Your task to perform on an android device: toggle javascript in the chrome app Image 0: 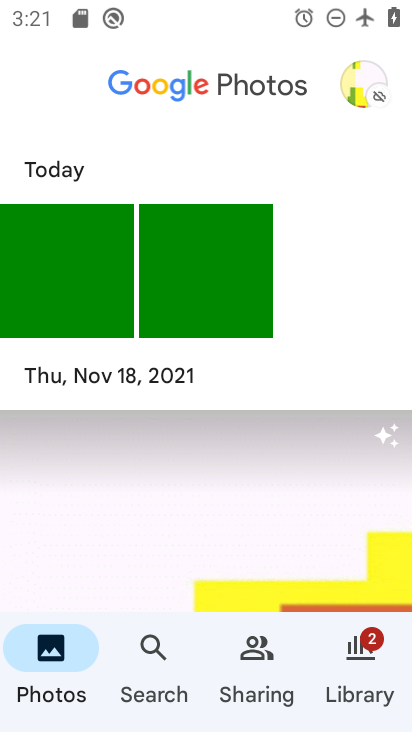
Step 0: press home button
Your task to perform on an android device: toggle javascript in the chrome app Image 1: 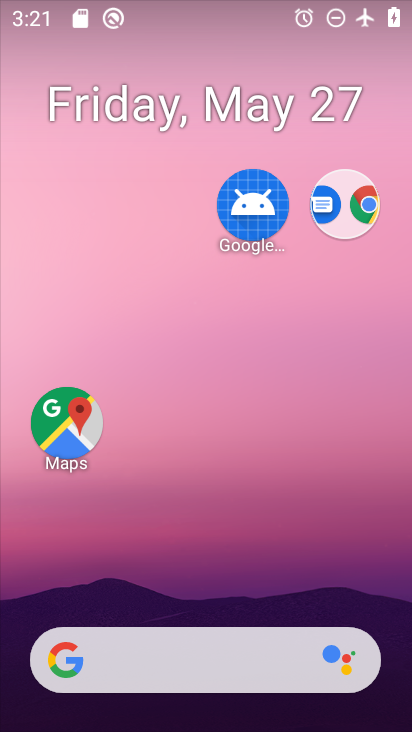
Step 1: drag from (208, 585) to (350, 22)
Your task to perform on an android device: toggle javascript in the chrome app Image 2: 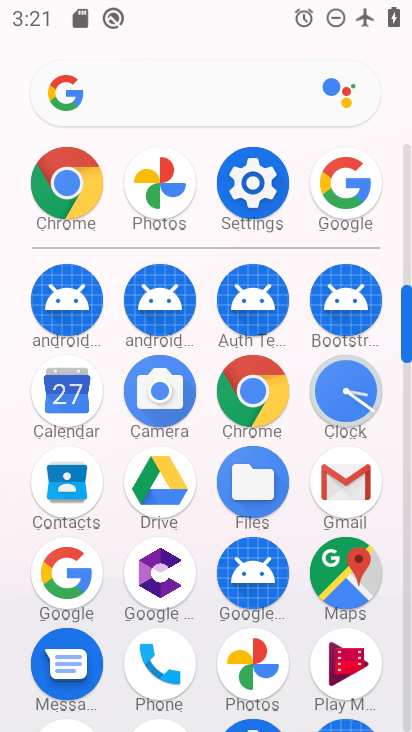
Step 2: click (270, 399)
Your task to perform on an android device: toggle javascript in the chrome app Image 3: 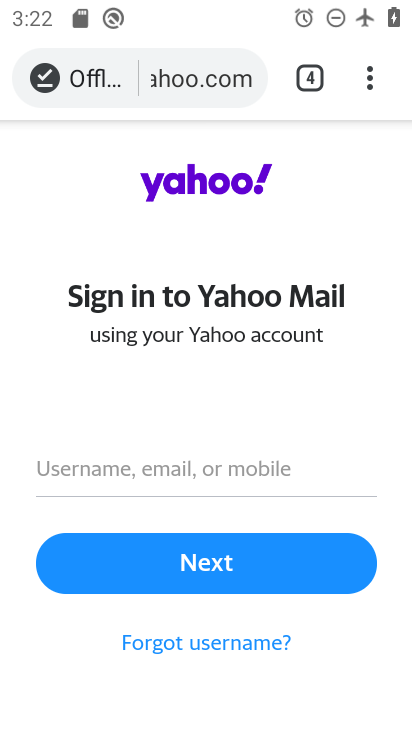
Step 3: click (375, 79)
Your task to perform on an android device: toggle javascript in the chrome app Image 4: 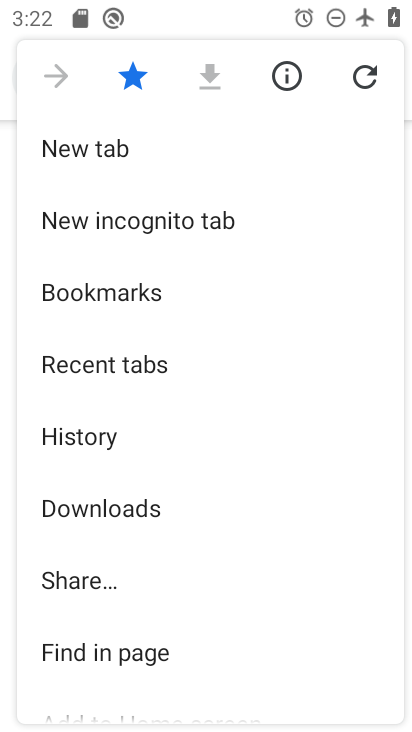
Step 4: drag from (186, 644) to (272, 245)
Your task to perform on an android device: toggle javascript in the chrome app Image 5: 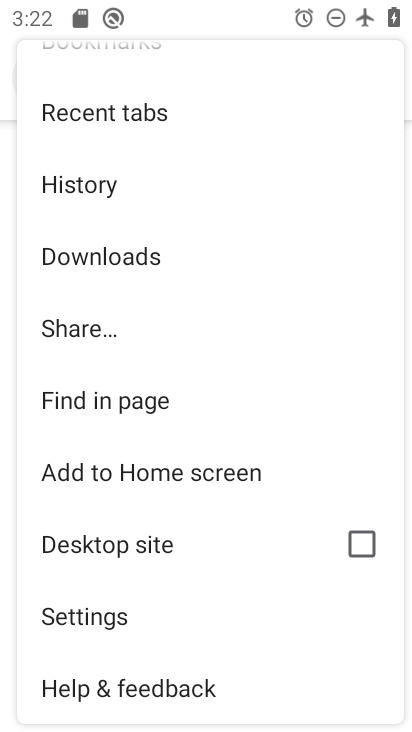
Step 5: click (126, 615)
Your task to perform on an android device: toggle javascript in the chrome app Image 6: 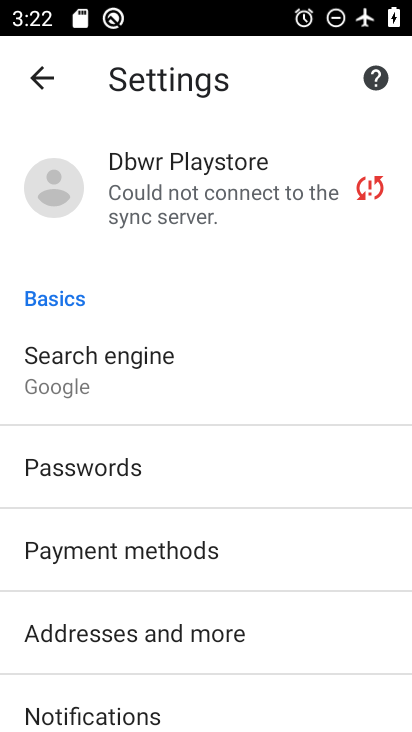
Step 6: drag from (136, 710) to (204, 416)
Your task to perform on an android device: toggle javascript in the chrome app Image 7: 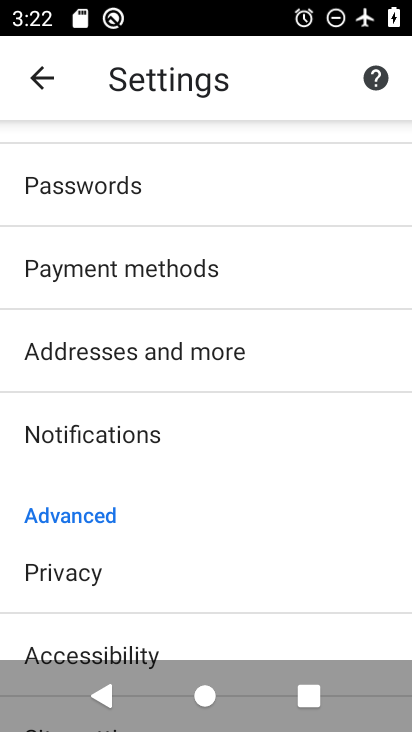
Step 7: drag from (230, 568) to (267, 325)
Your task to perform on an android device: toggle javascript in the chrome app Image 8: 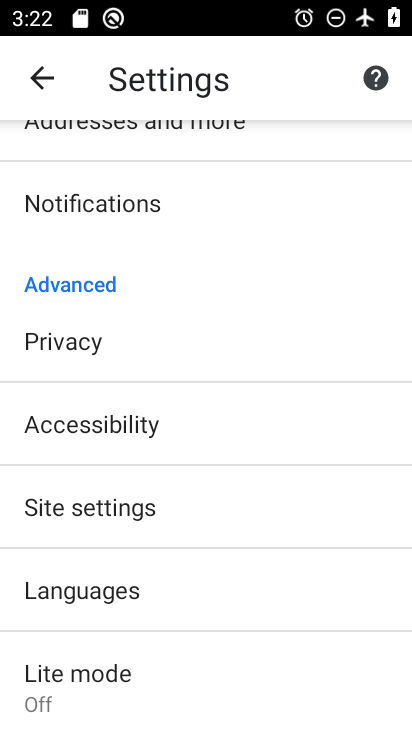
Step 8: click (140, 501)
Your task to perform on an android device: toggle javascript in the chrome app Image 9: 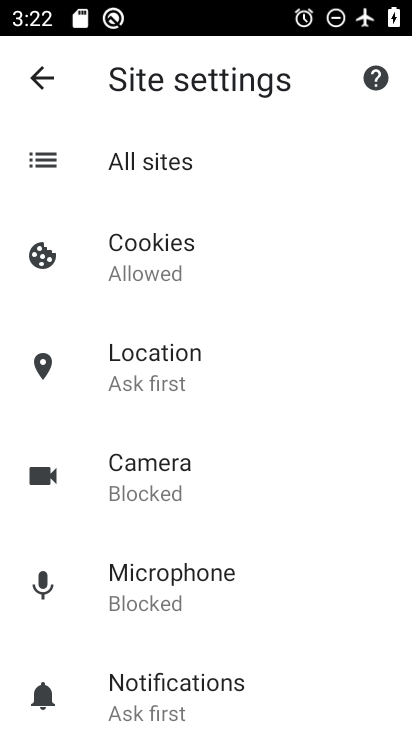
Step 9: drag from (167, 658) to (213, 426)
Your task to perform on an android device: toggle javascript in the chrome app Image 10: 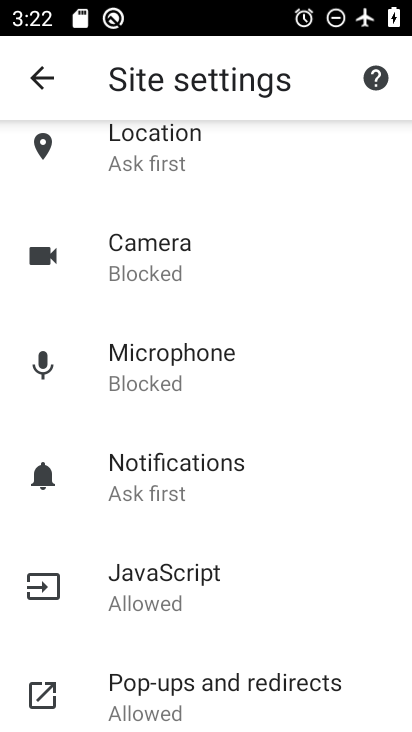
Step 10: click (196, 574)
Your task to perform on an android device: toggle javascript in the chrome app Image 11: 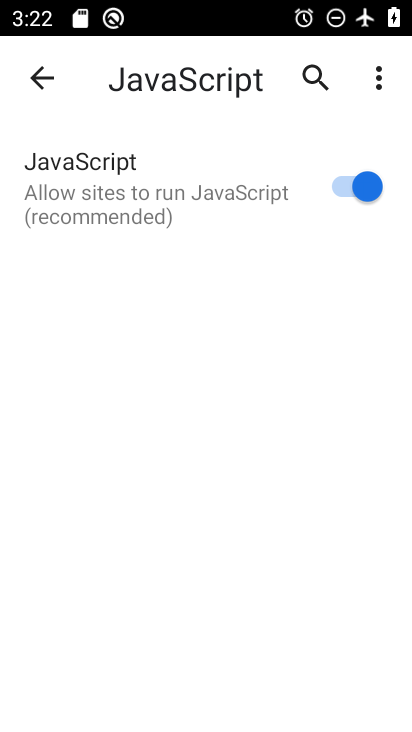
Step 11: click (347, 178)
Your task to perform on an android device: toggle javascript in the chrome app Image 12: 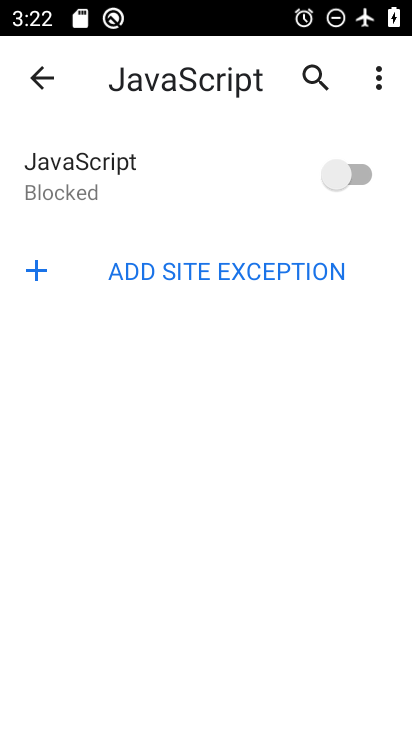
Step 12: task complete